Your task to perform on an android device: delete location history Image 0: 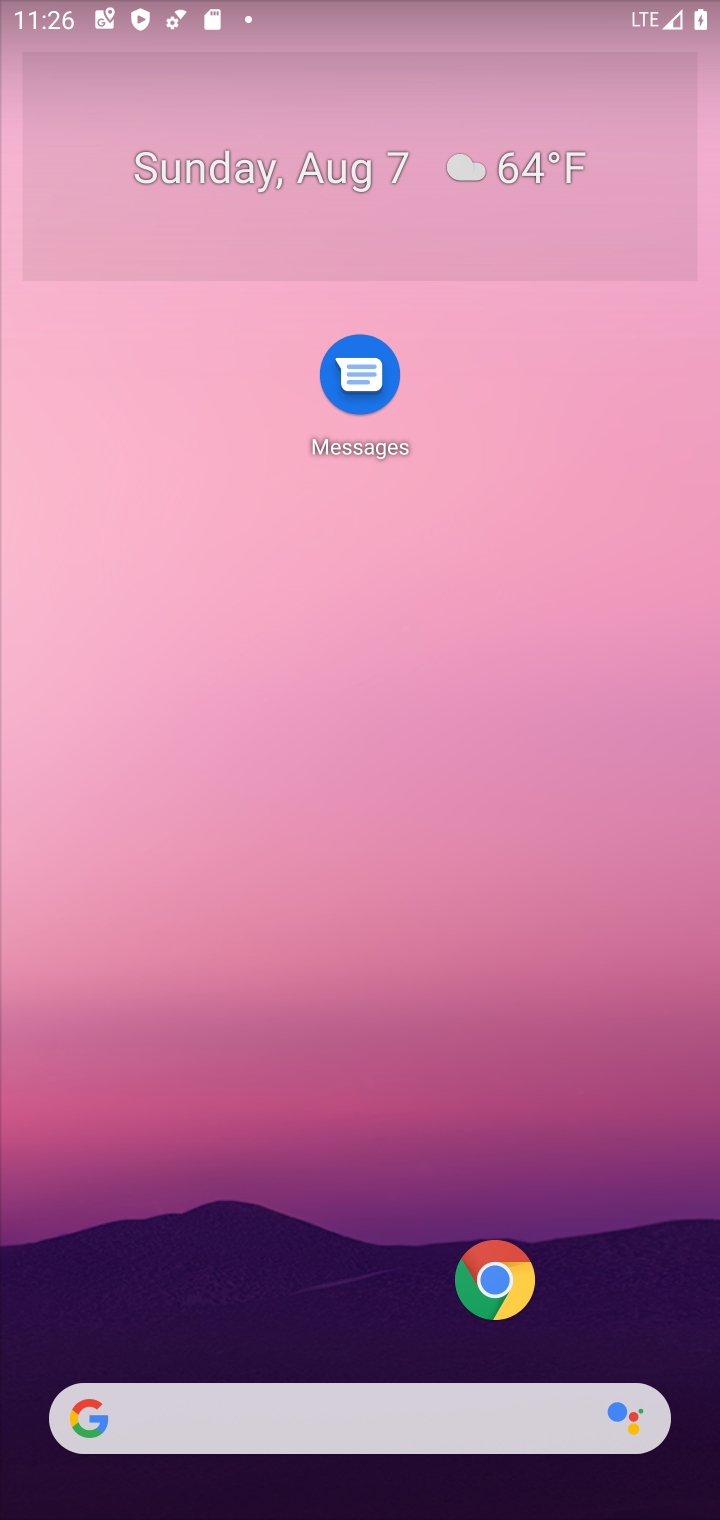
Step 0: drag from (347, 991) to (429, 79)
Your task to perform on an android device: delete location history Image 1: 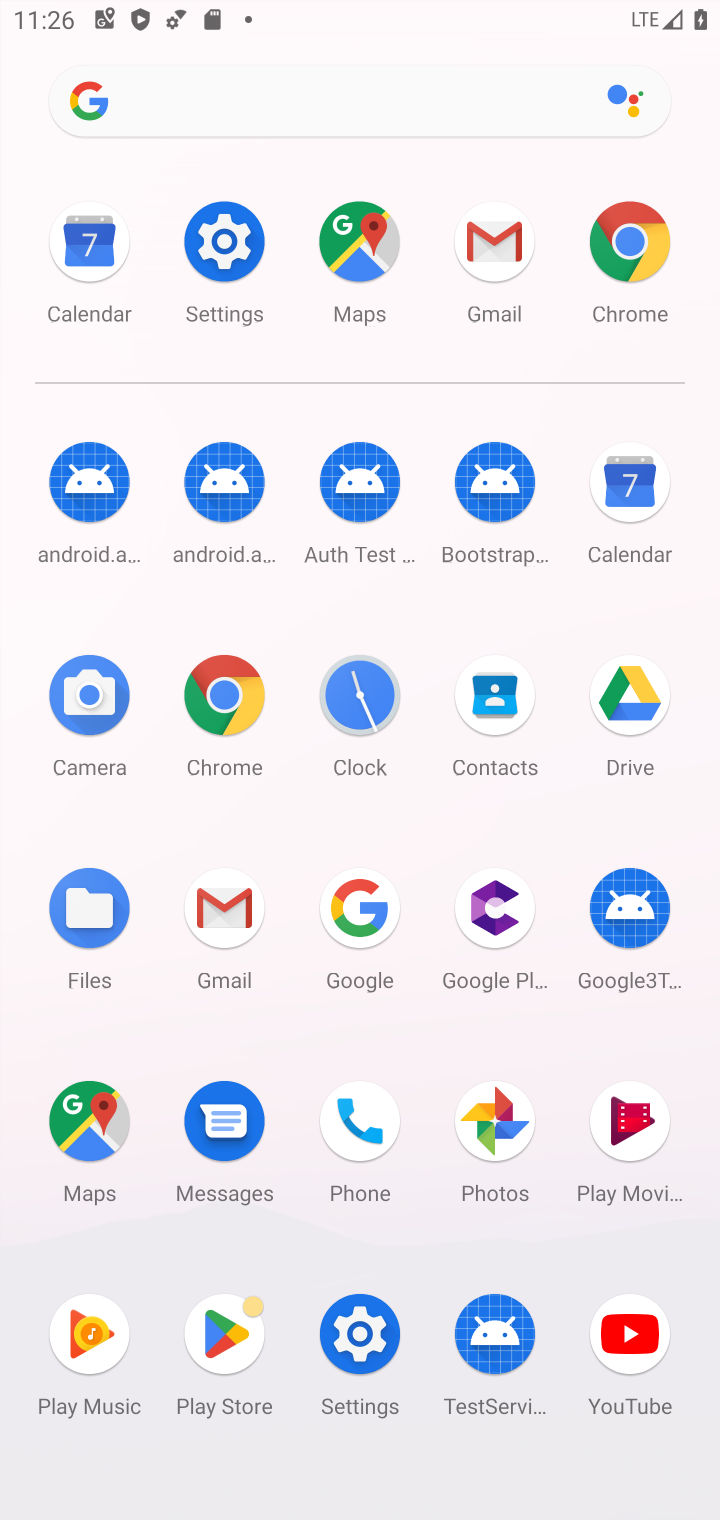
Step 1: click (226, 239)
Your task to perform on an android device: delete location history Image 2: 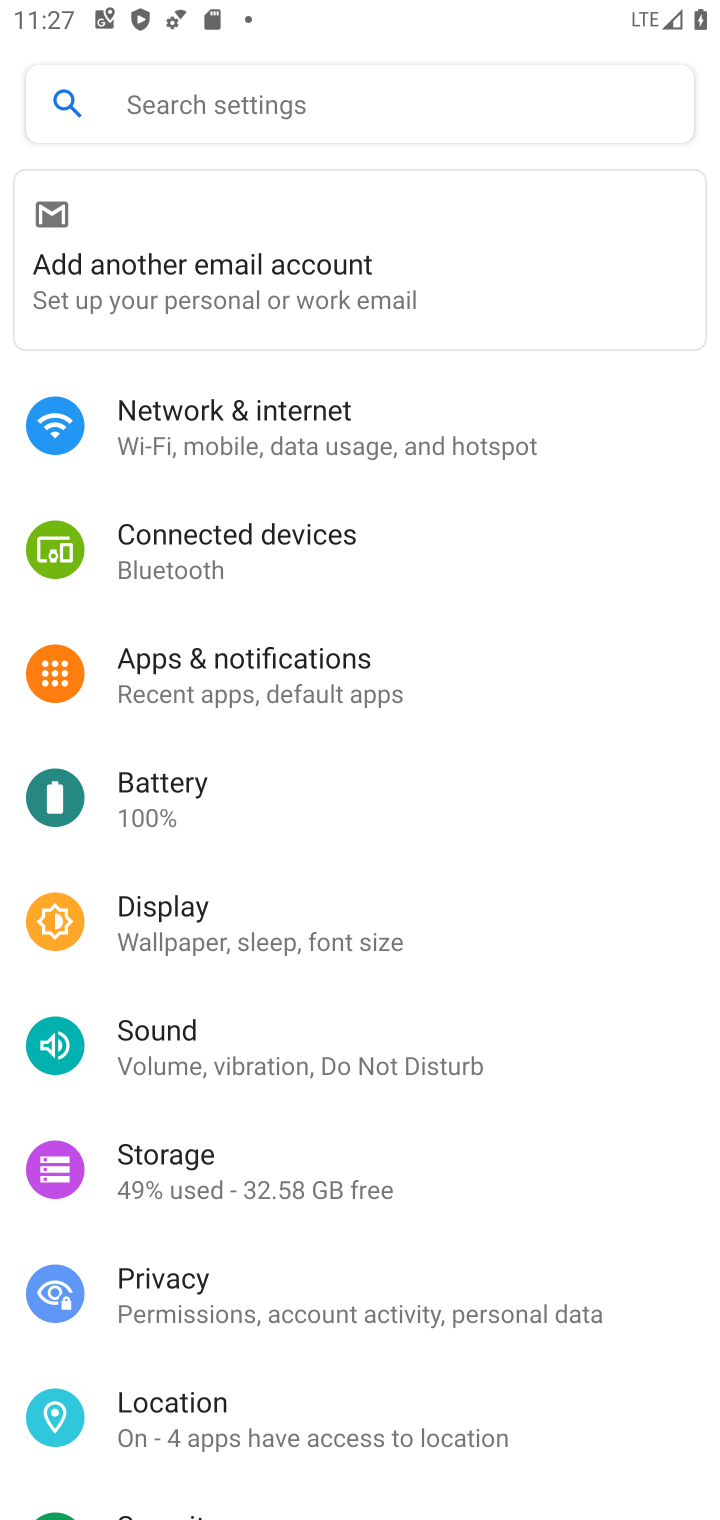
Step 2: click (253, 1416)
Your task to perform on an android device: delete location history Image 3: 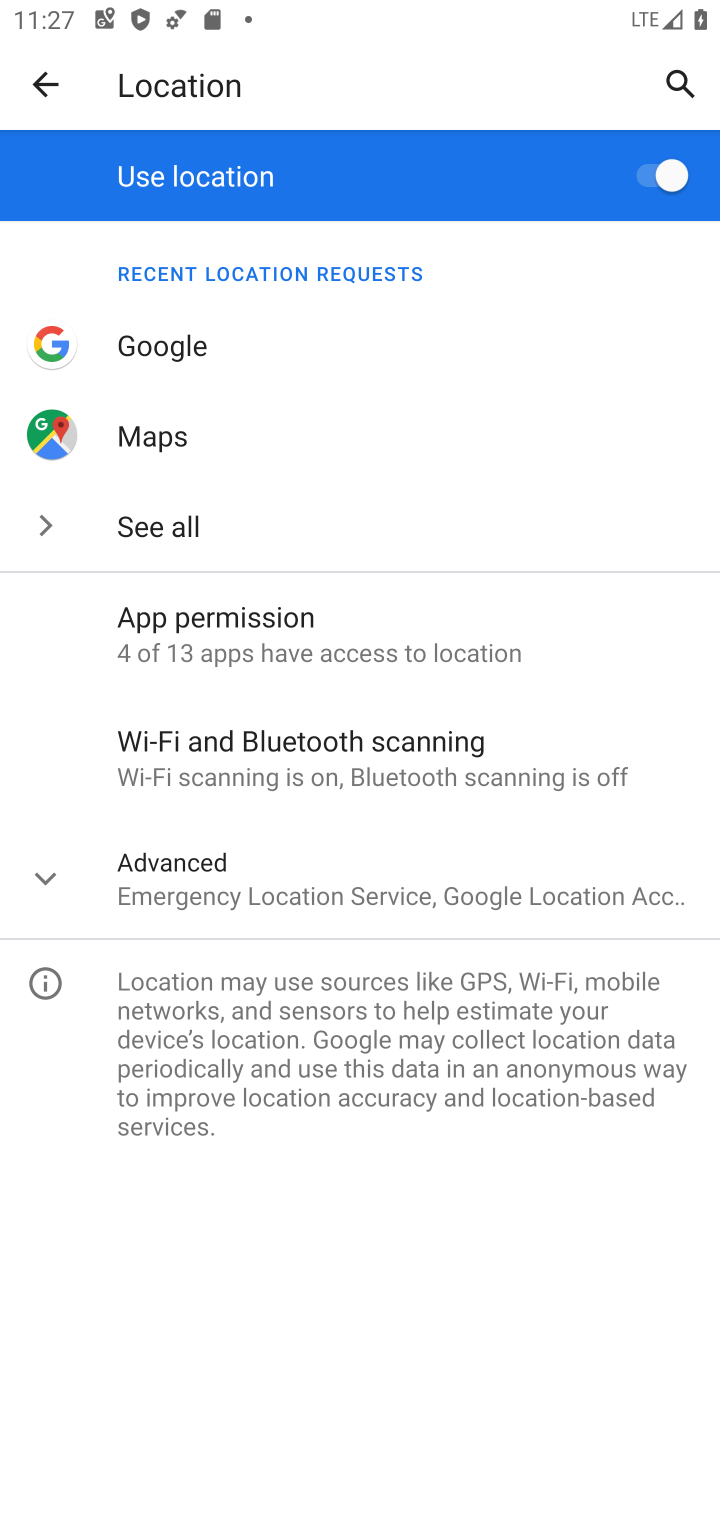
Step 3: press back button
Your task to perform on an android device: delete location history Image 4: 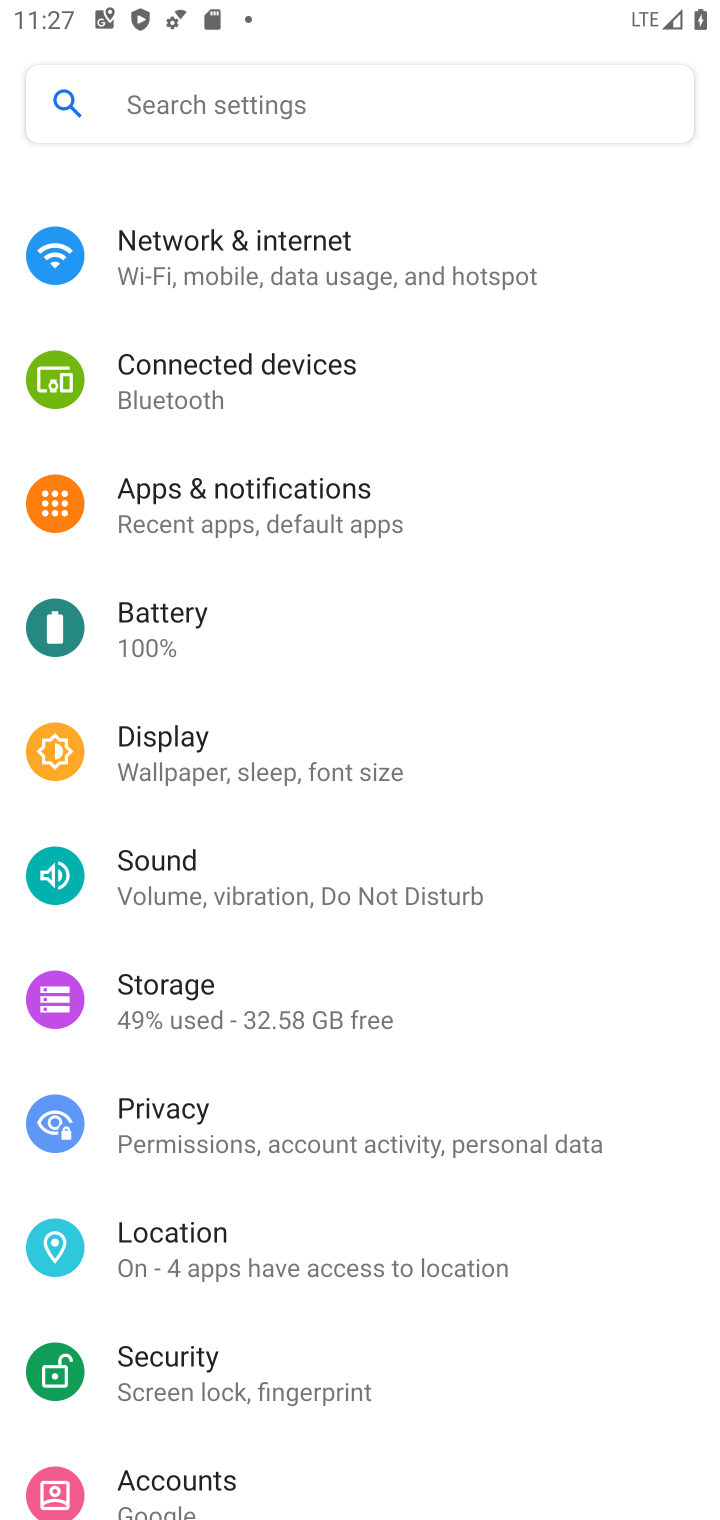
Step 4: press back button
Your task to perform on an android device: delete location history Image 5: 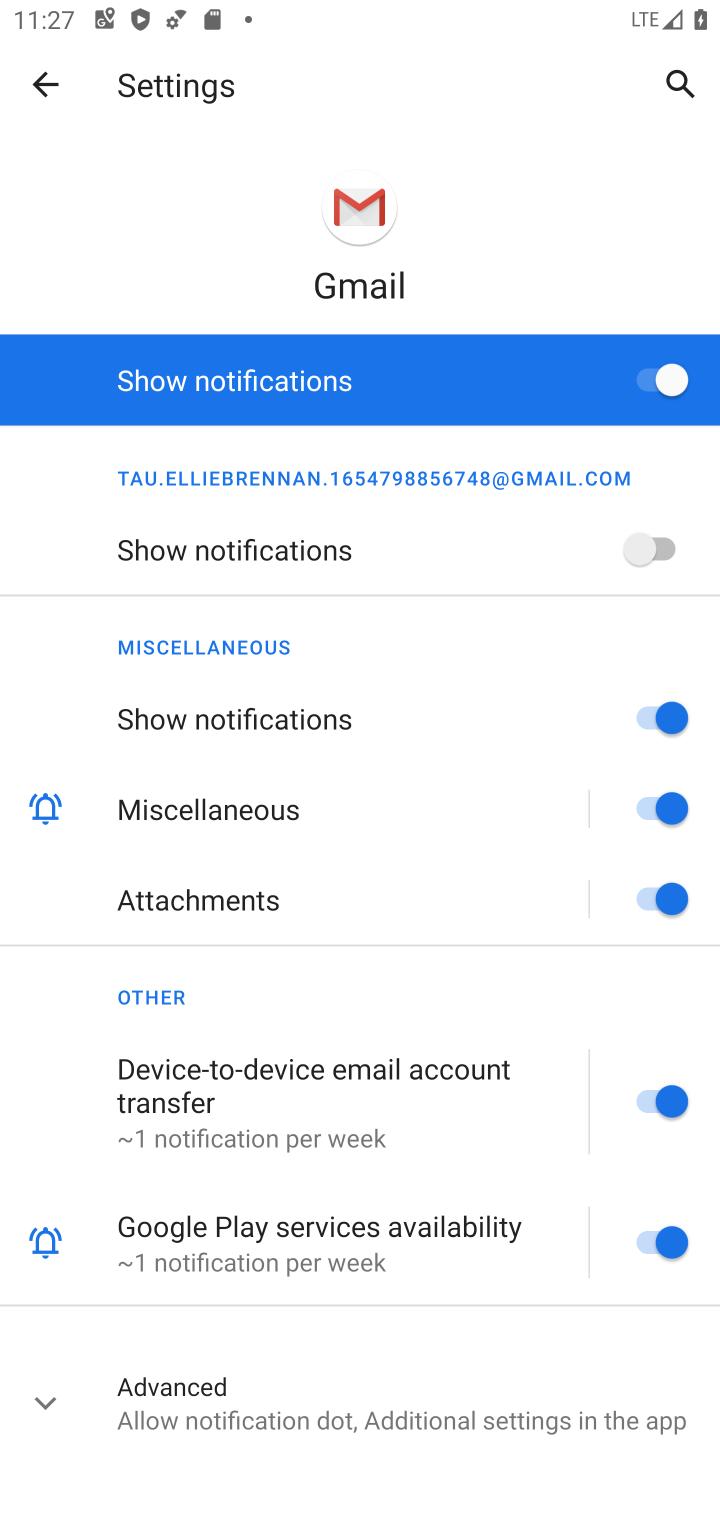
Step 5: press back button
Your task to perform on an android device: delete location history Image 6: 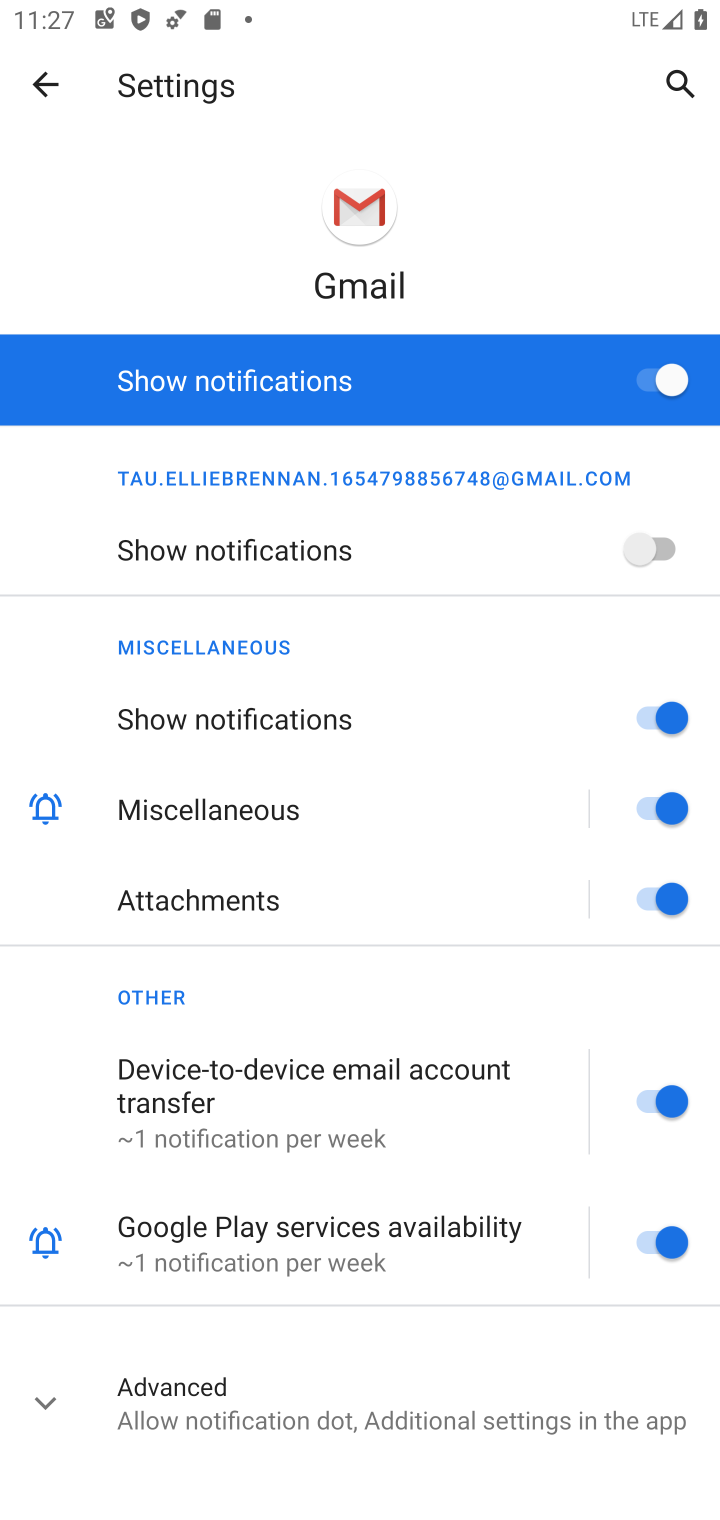
Step 6: press back button
Your task to perform on an android device: delete location history Image 7: 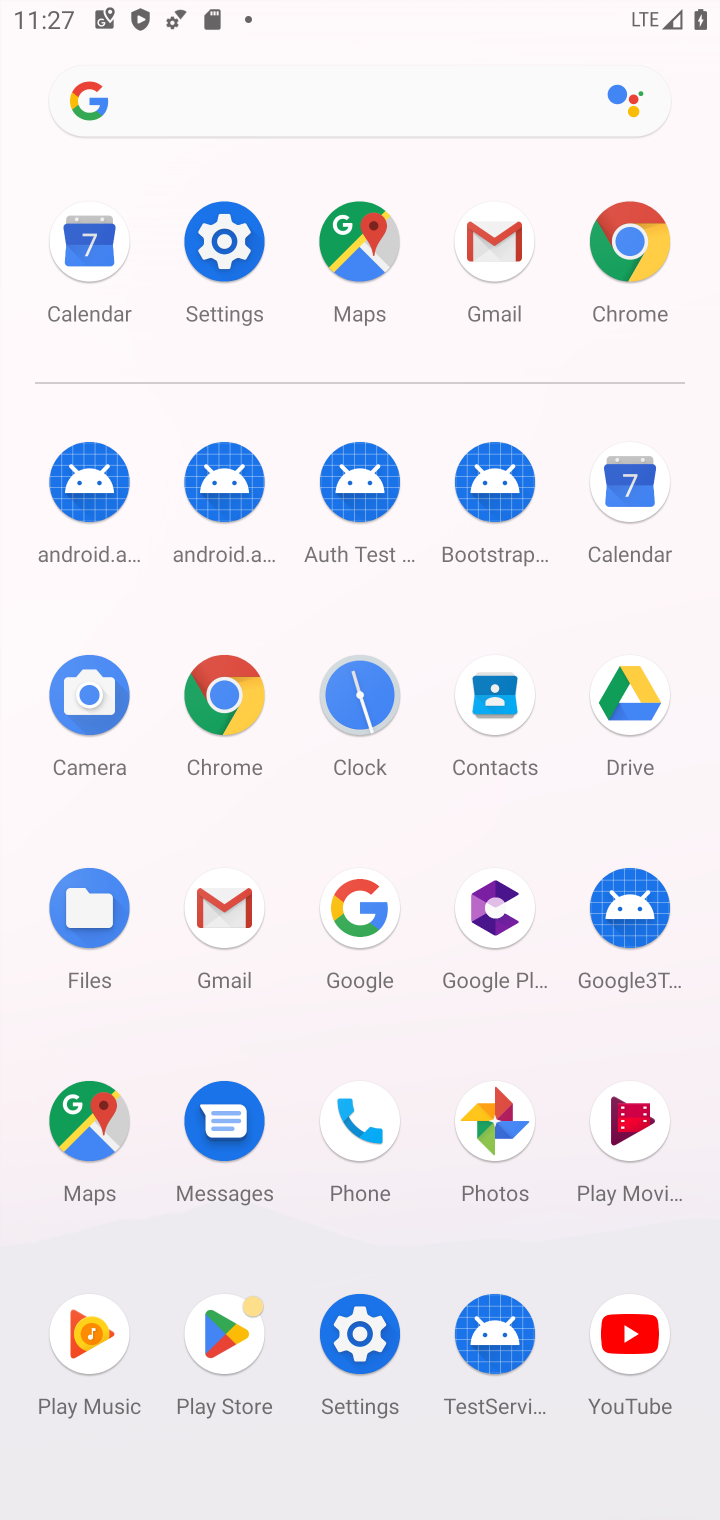
Step 7: press back button
Your task to perform on an android device: delete location history Image 8: 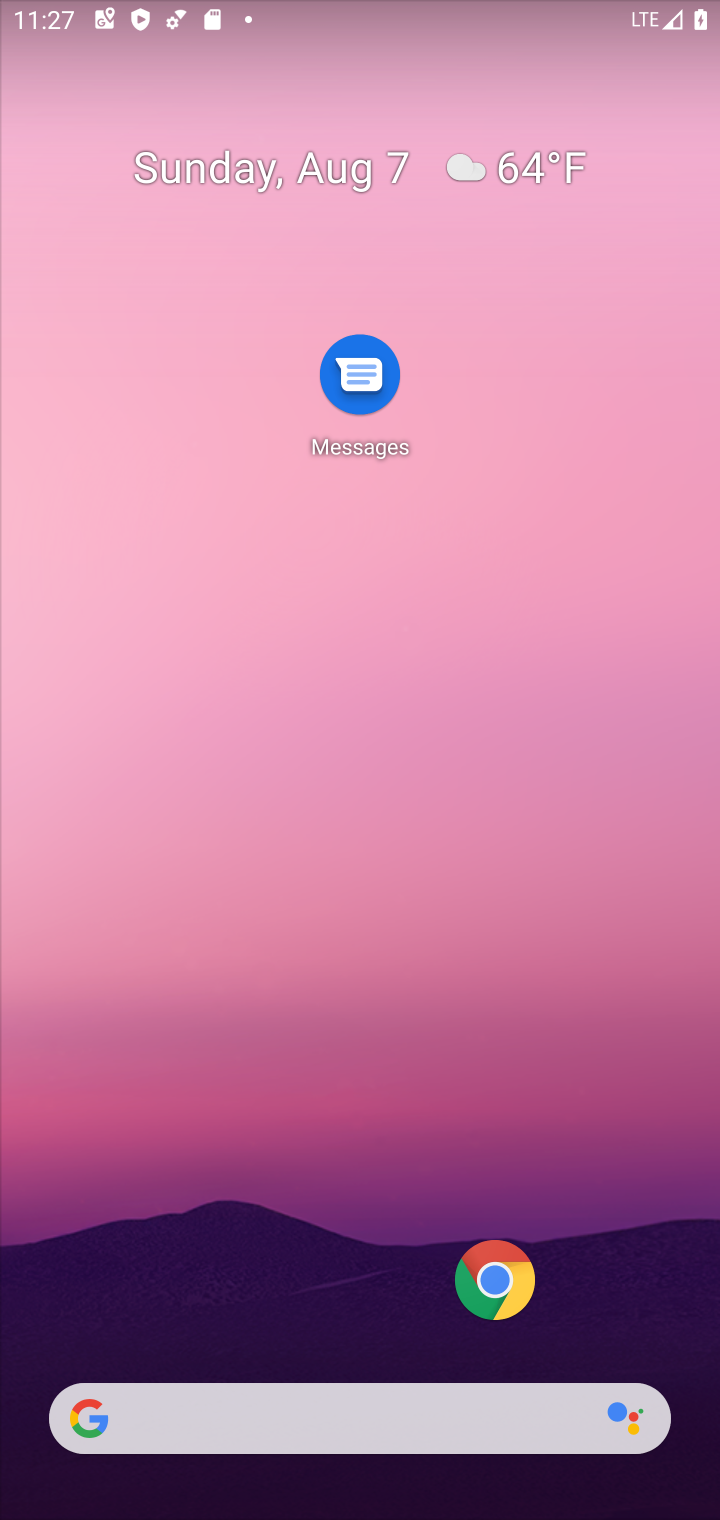
Step 8: drag from (279, 1287) to (448, 10)
Your task to perform on an android device: delete location history Image 9: 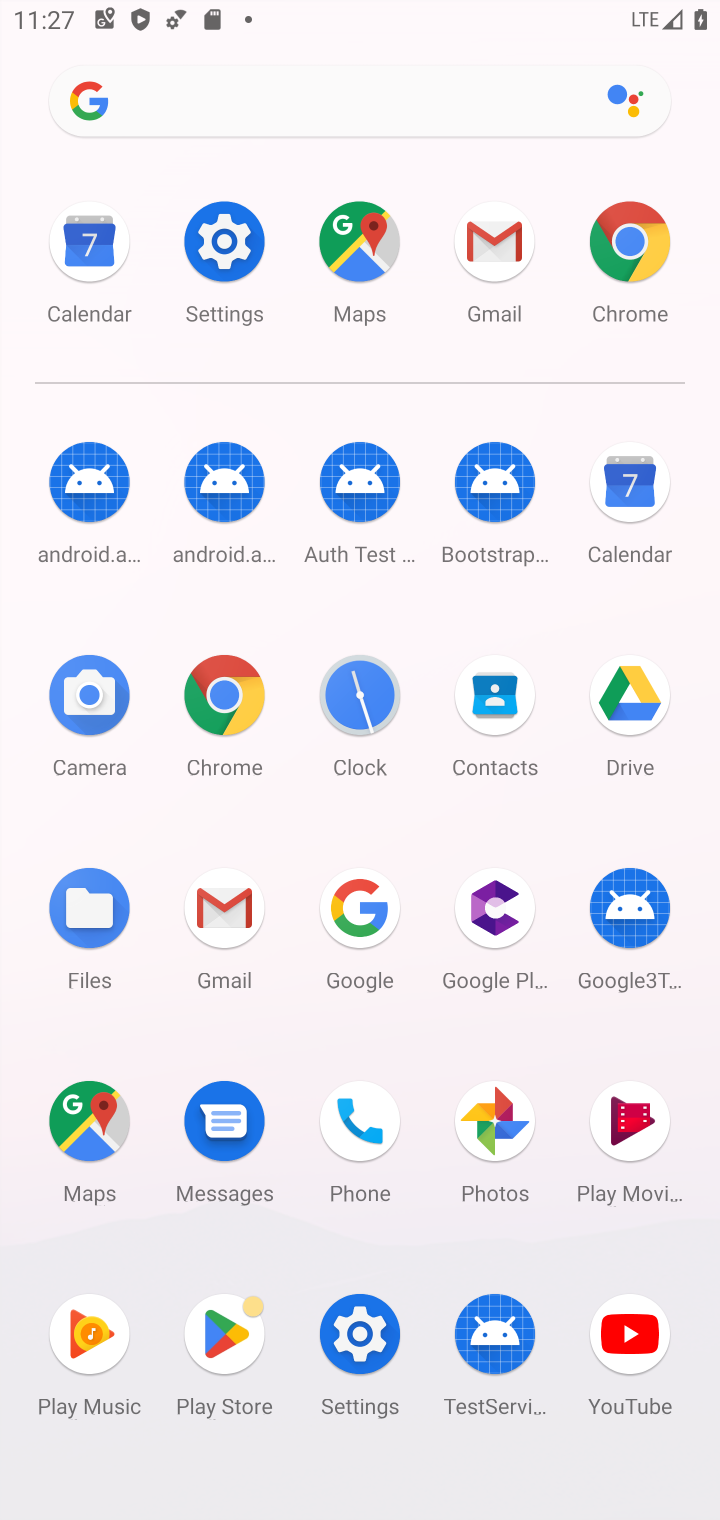
Step 9: click (362, 245)
Your task to perform on an android device: delete location history Image 10: 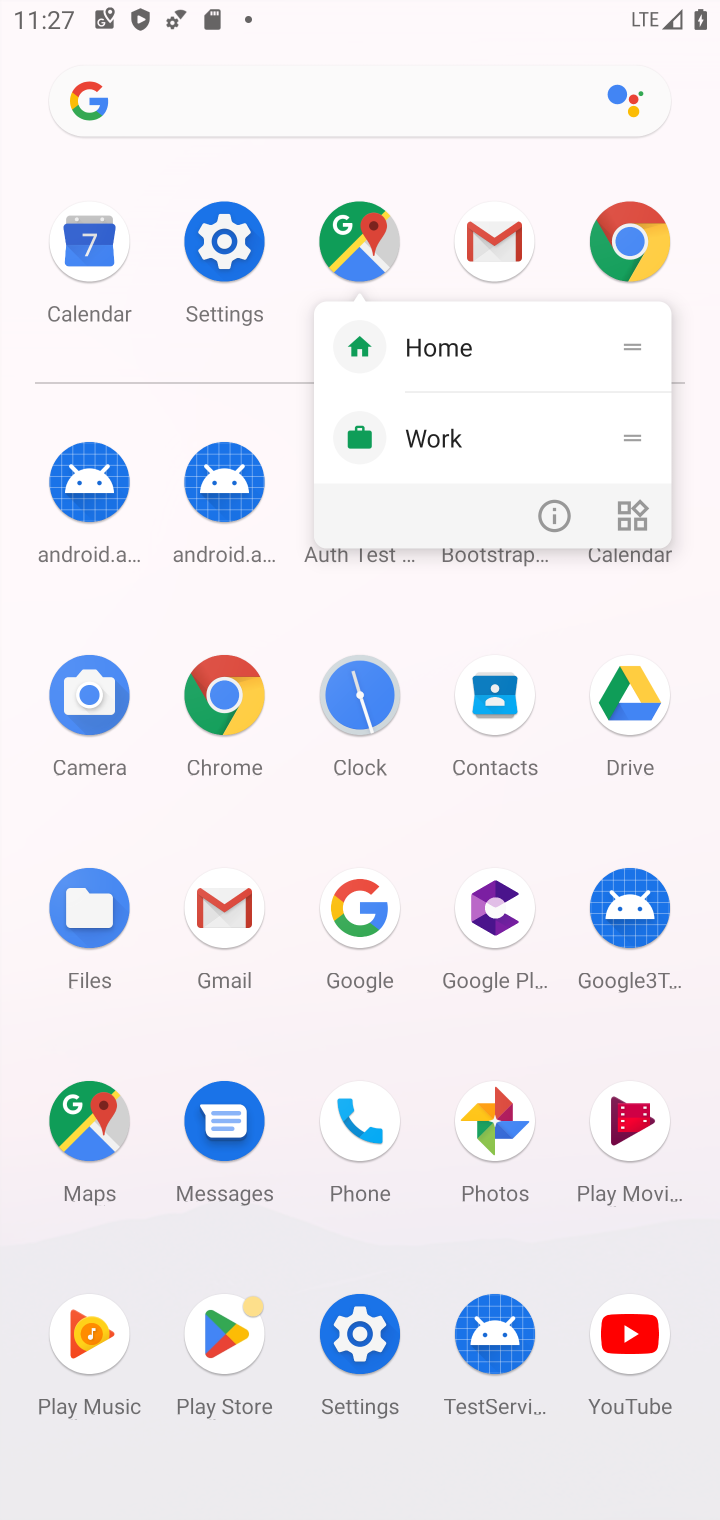
Step 10: click (358, 241)
Your task to perform on an android device: delete location history Image 11: 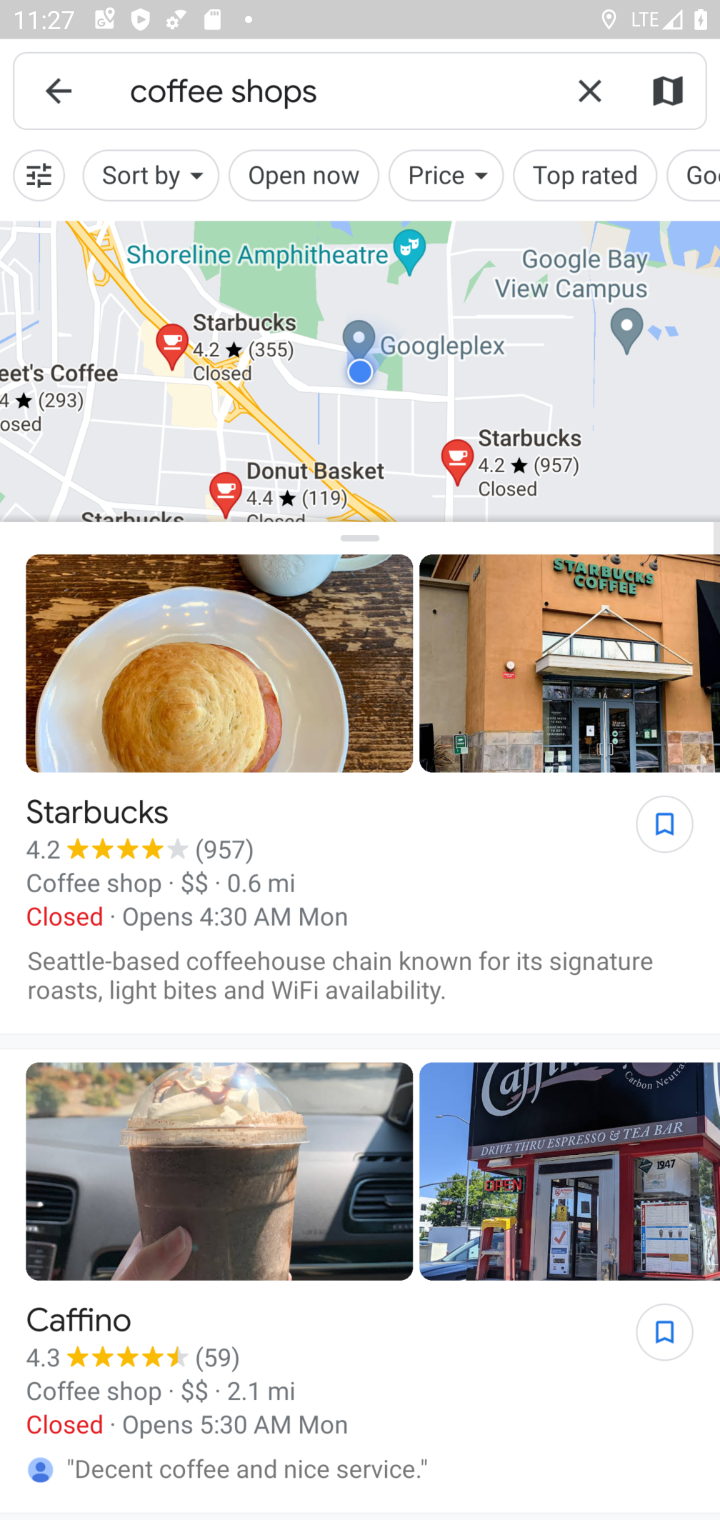
Step 11: click (48, 87)
Your task to perform on an android device: delete location history Image 12: 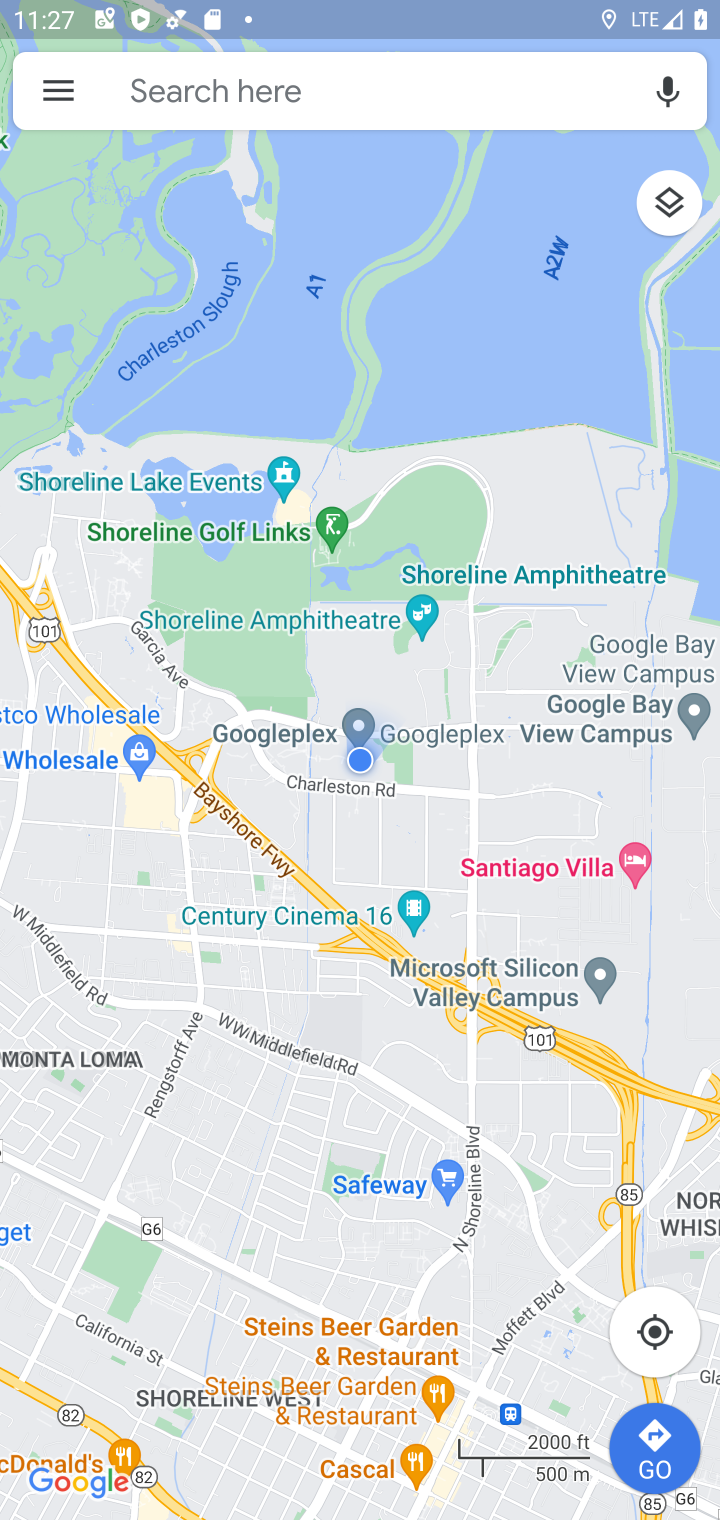
Step 12: click (63, 93)
Your task to perform on an android device: delete location history Image 13: 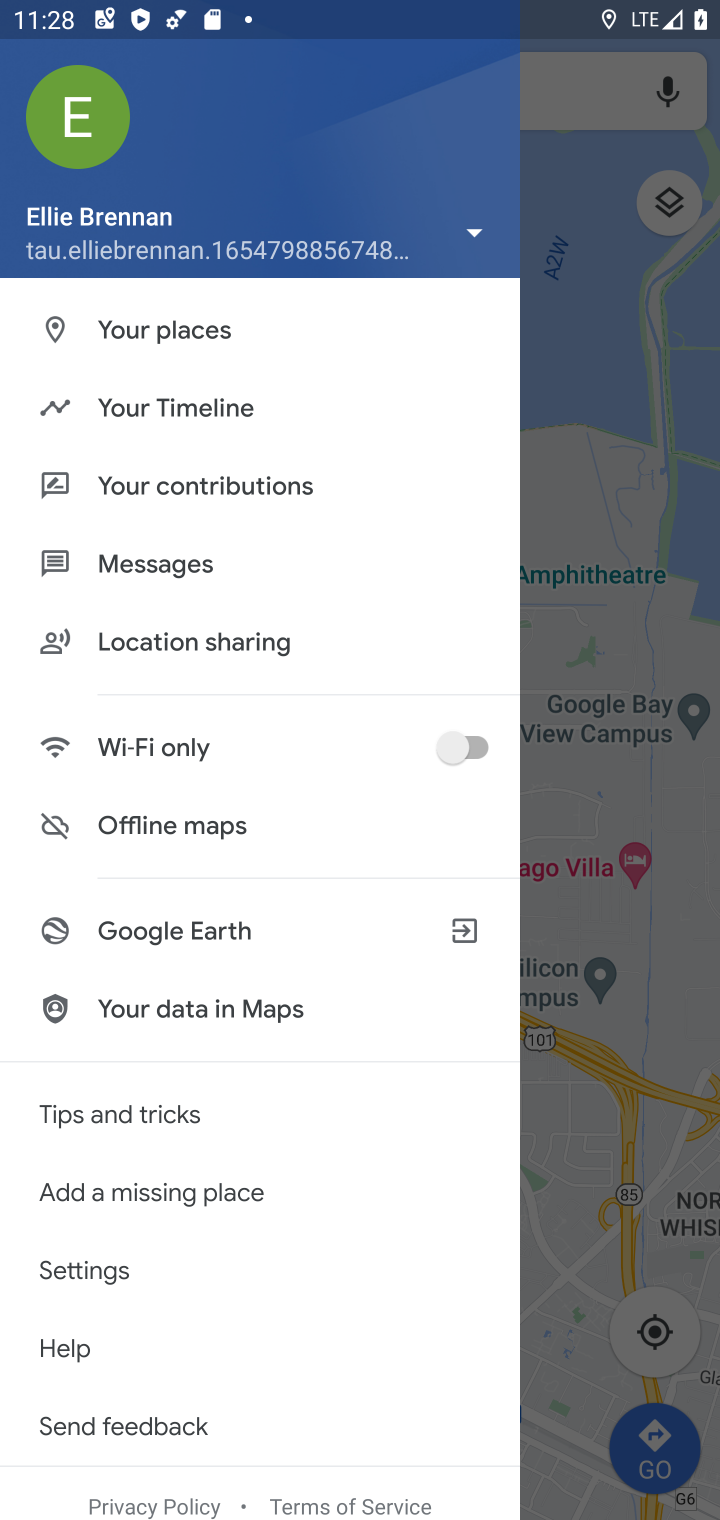
Step 13: click (245, 403)
Your task to perform on an android device: delete location history Image 14: 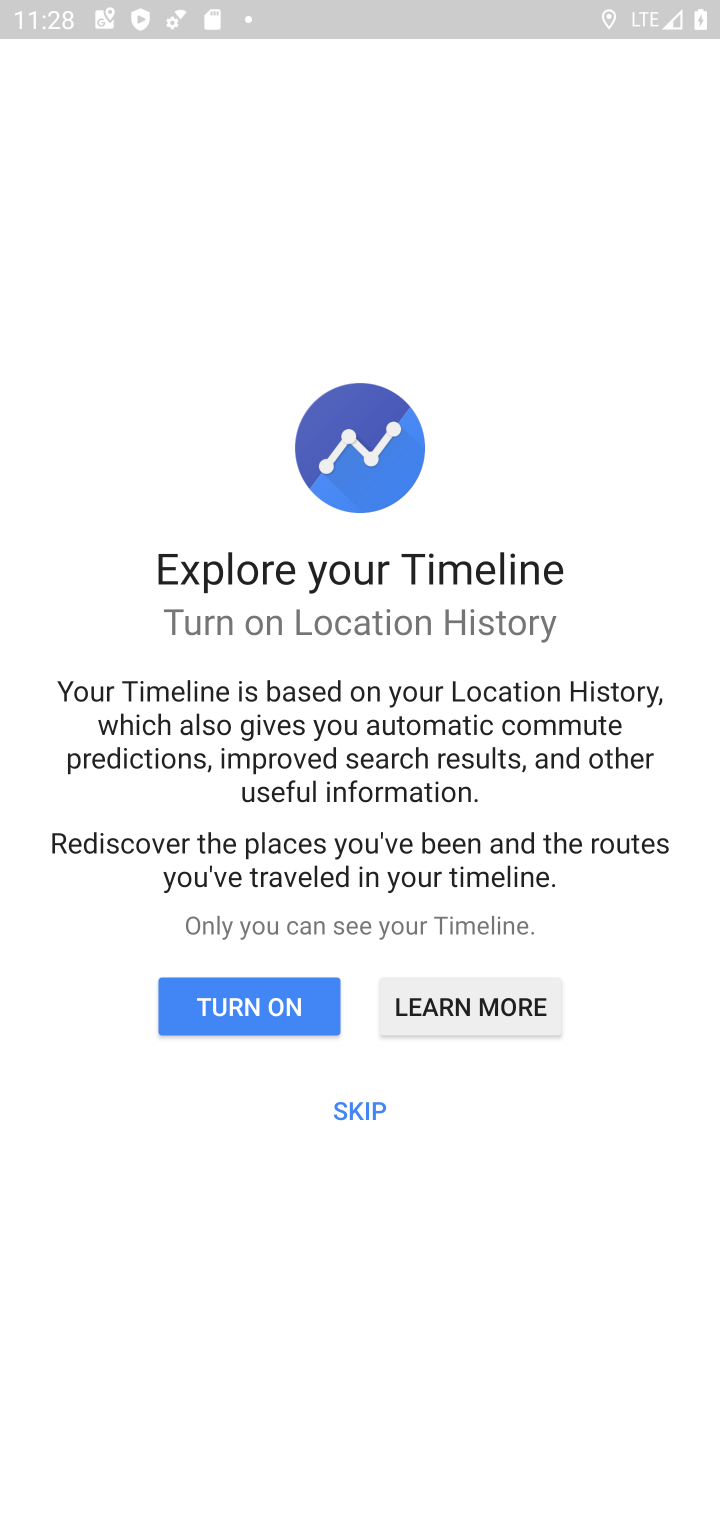
Step 14: click (370, 1121)
Your task to perform on an android device: delete location history Image 15: 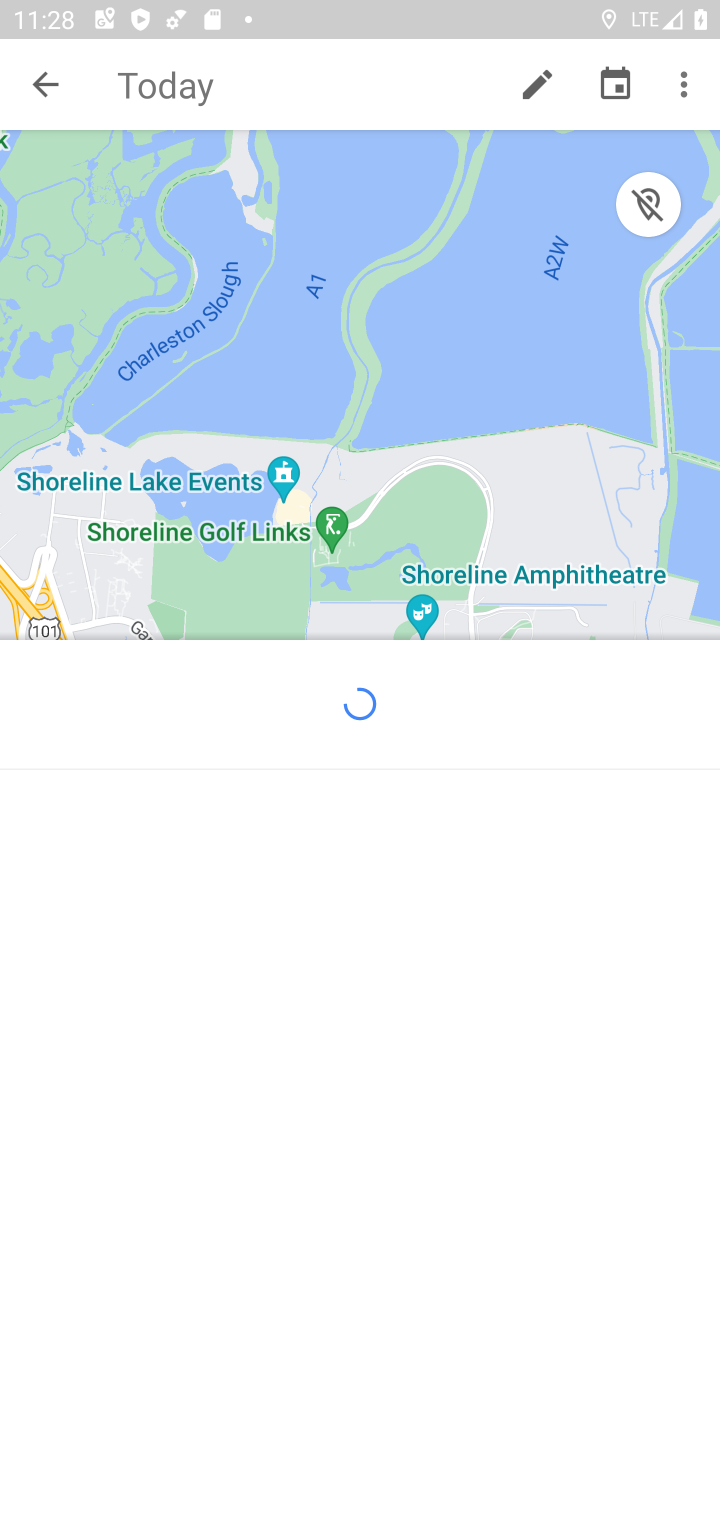
Step 15: click (684, 94)
Your task to perform on an android device: delete location history Image 16: 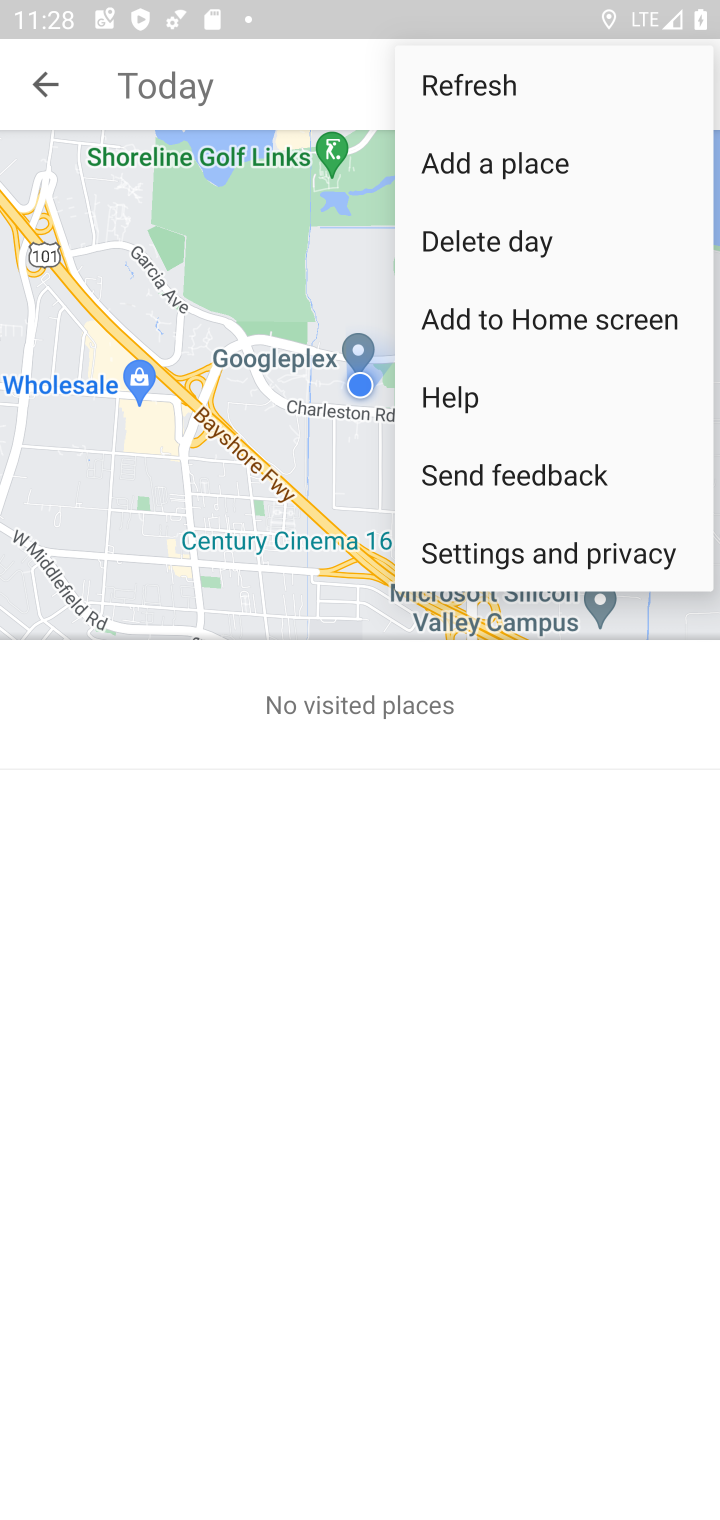
Step 16: click (510, 550)
Your task to perform on an android device: delete location history Image 17: 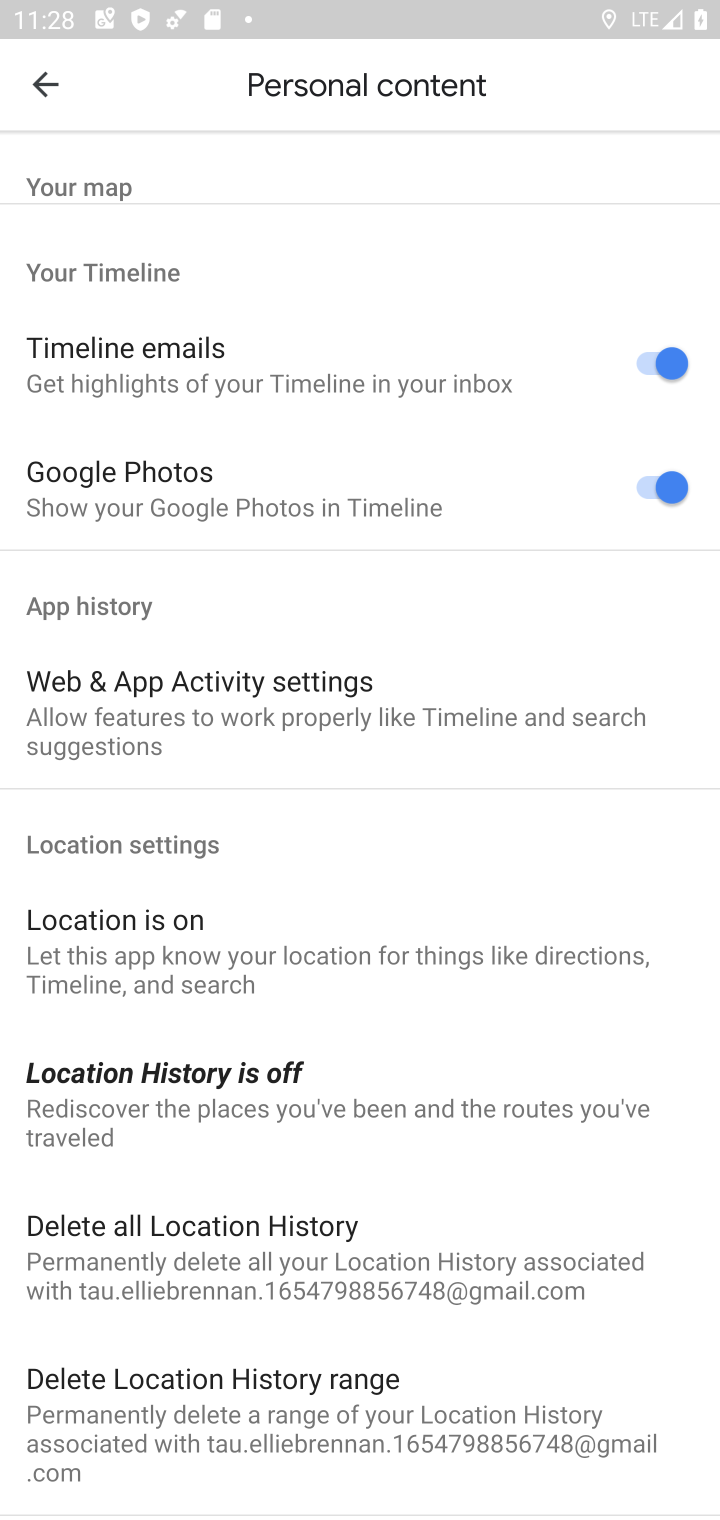
Step 17: click (330, 1231)
Your task to perform on an android device: delete location history Image 18: 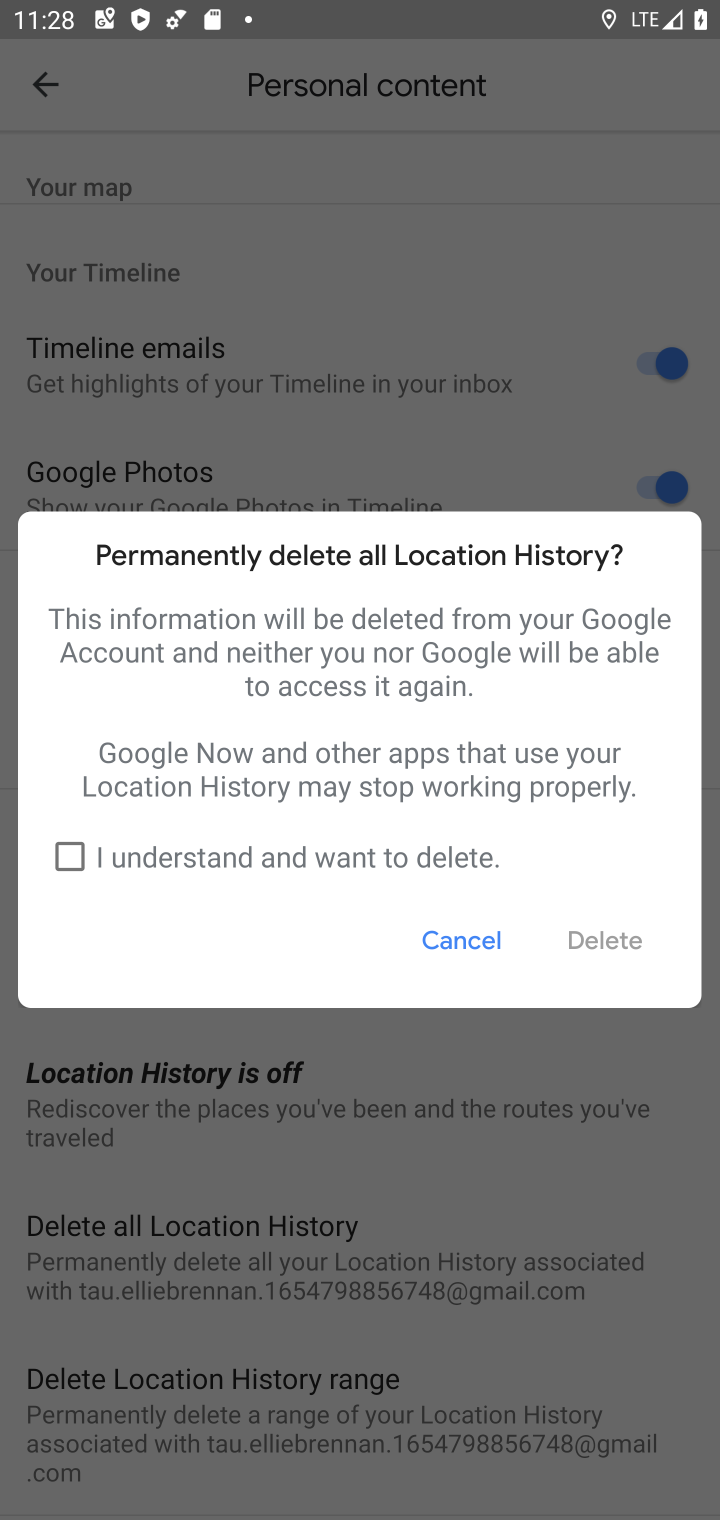
Step 18: click (94, 870)
Your task to perform on an android device: delete location history Image 19: 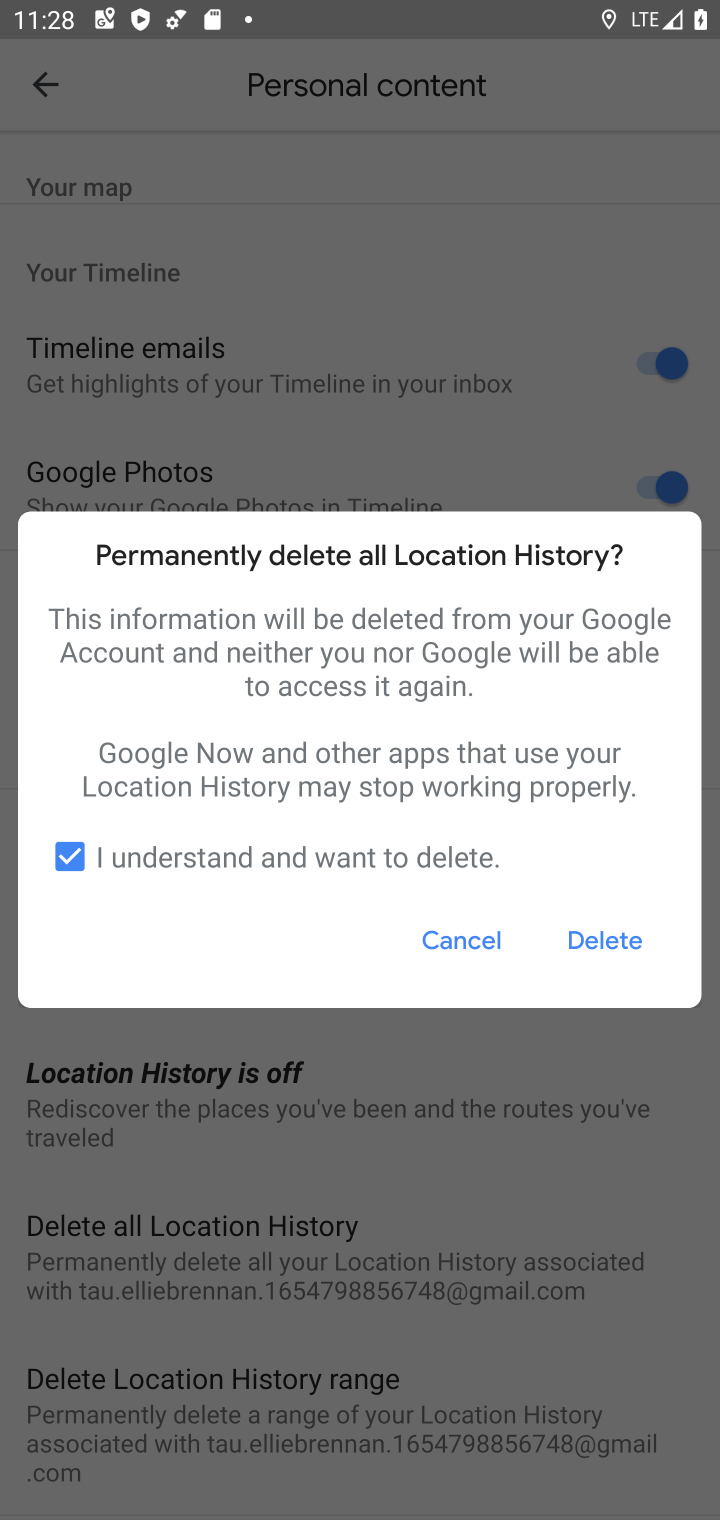
Step 19: click (614, 959)
Your task to perform on an android device: delete location history Image 20: 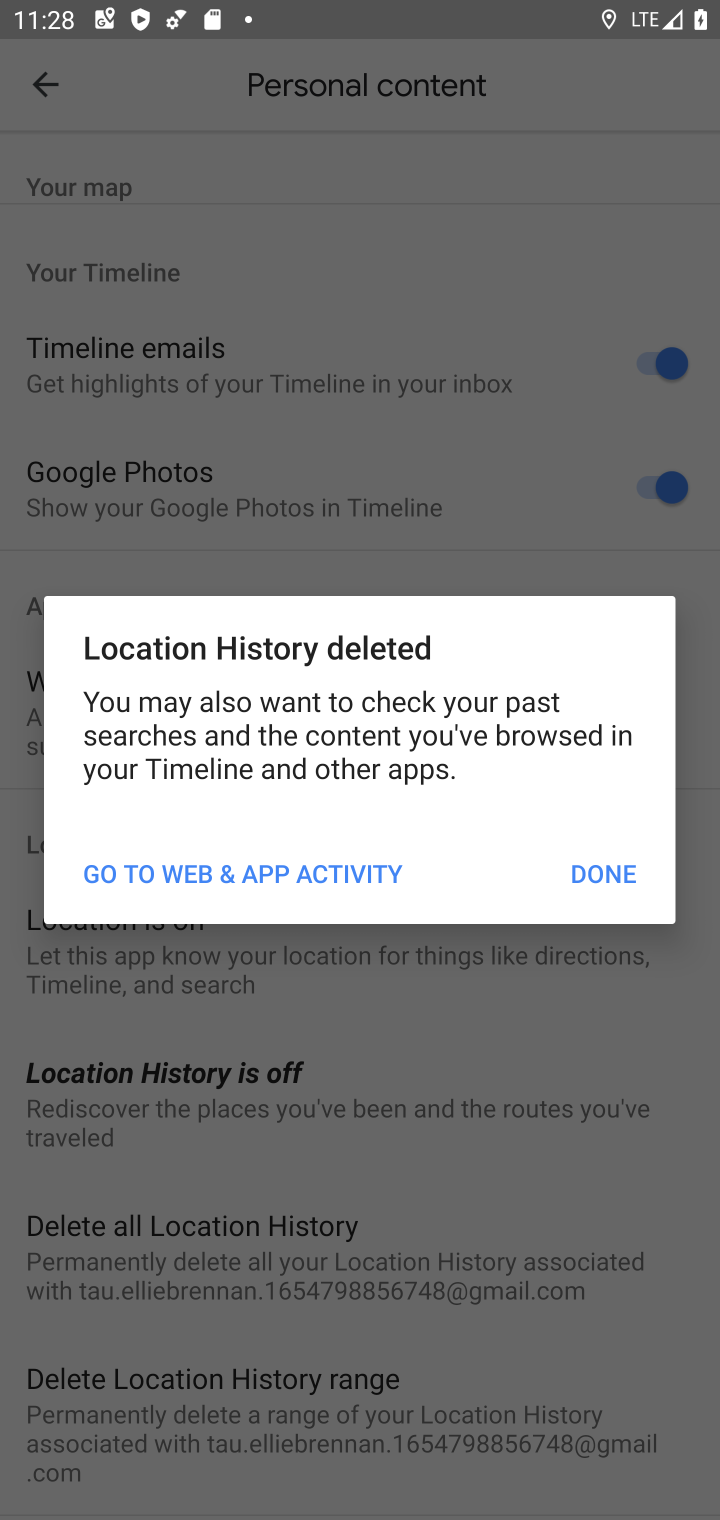
Step 20: click (625, 862)
Your task to perform on an android device: delete location history Image 21: 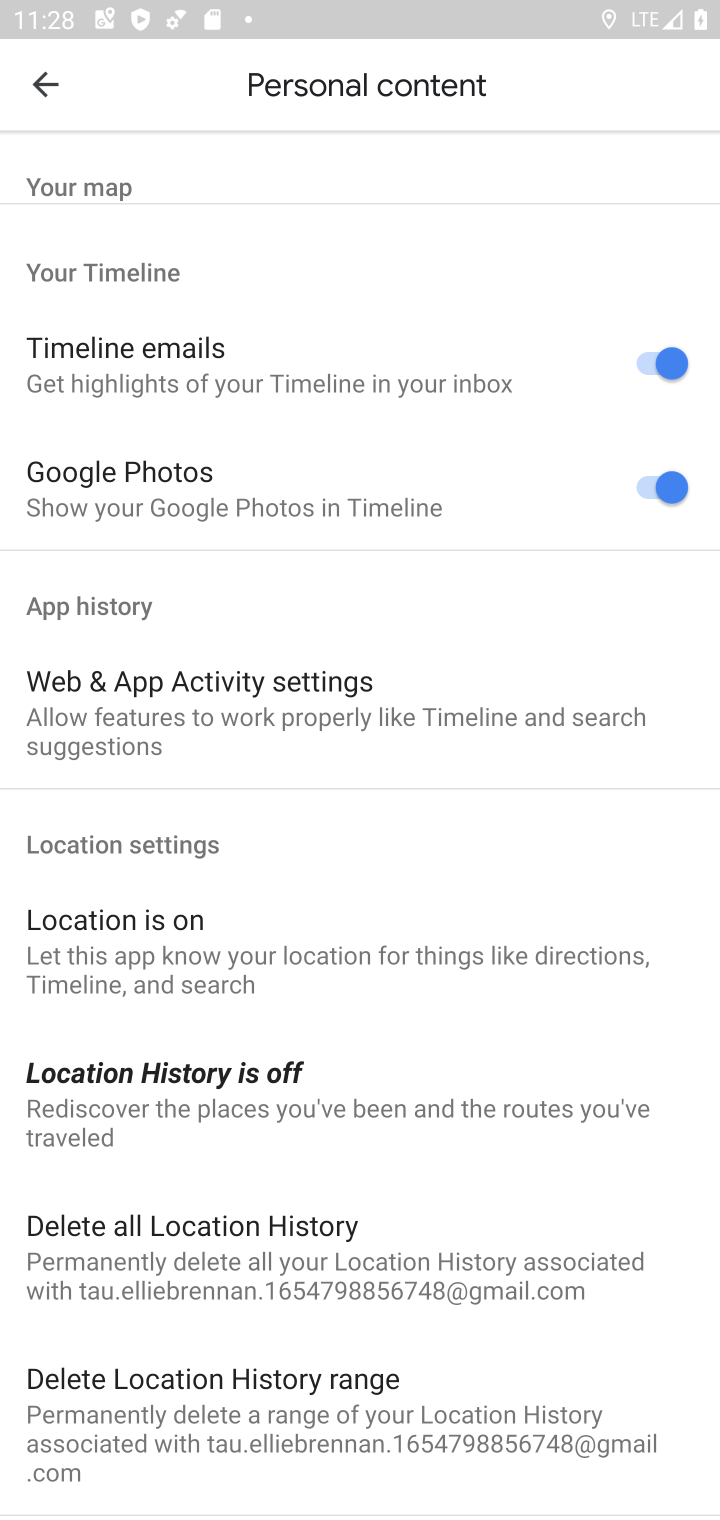
Step 21: task complete